Your task to perform on an android device: open a new tab in the chrome app Image 0: 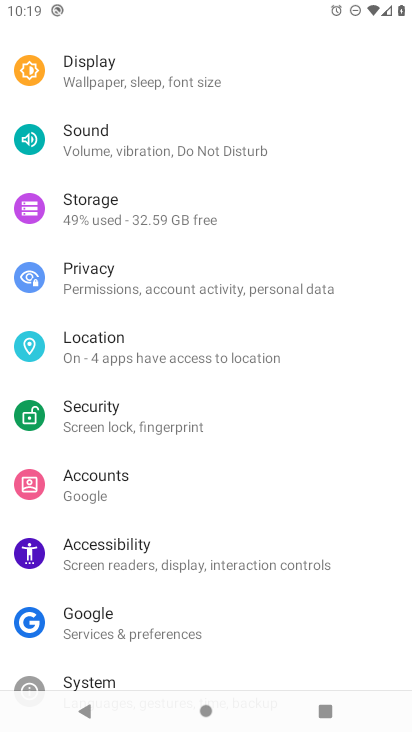
Step 0: press home button
Your task to perform on an android device: open a new tab in the chrome app Image 1: 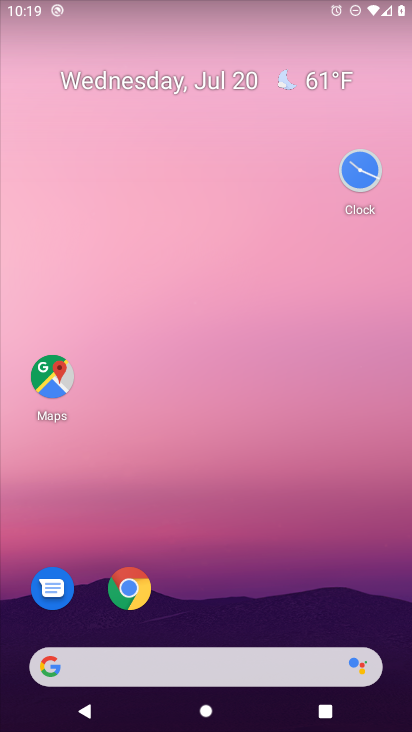
Step 1: click (140, 597)
Your task to perform on an android device: open a new tab in the chrome app Image 2: 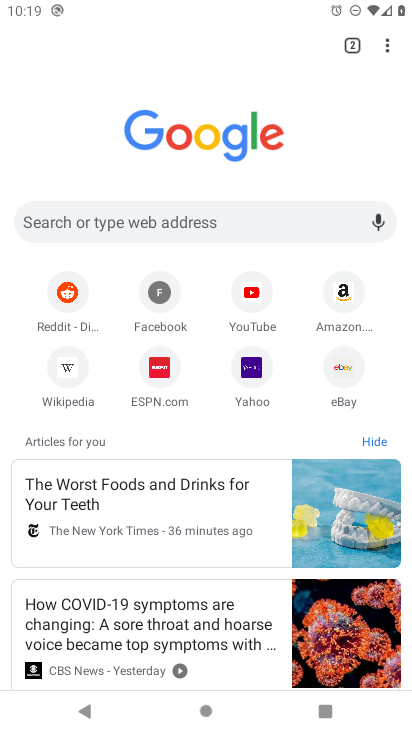
Step 2: click (394, 44)
Your task to perform on an android device: open a new tab in the chrome app Image 3: 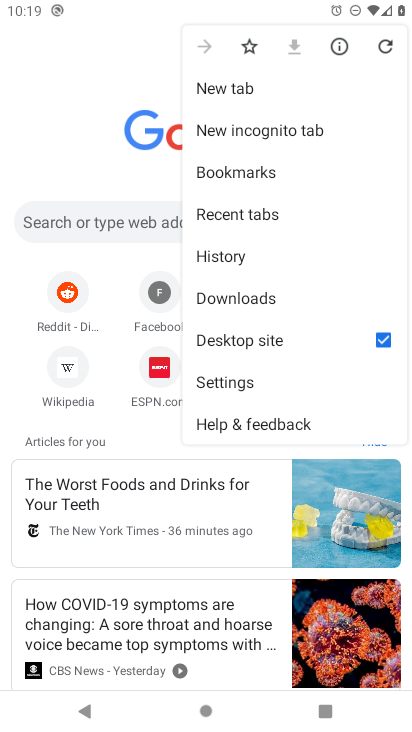
Step 3: click (237, 95)
Your task to perform on an android device: open a new tab in the chrome app Image 4: 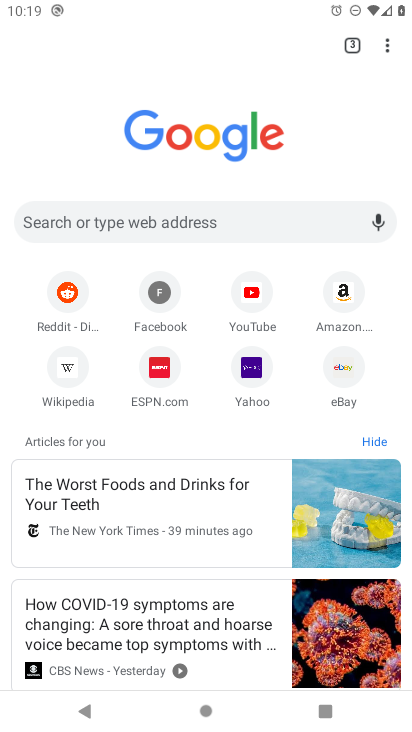
Step 4: task complete